Your task to perform on an android device: Open calendar and show me the fourth week of next month Image 0: 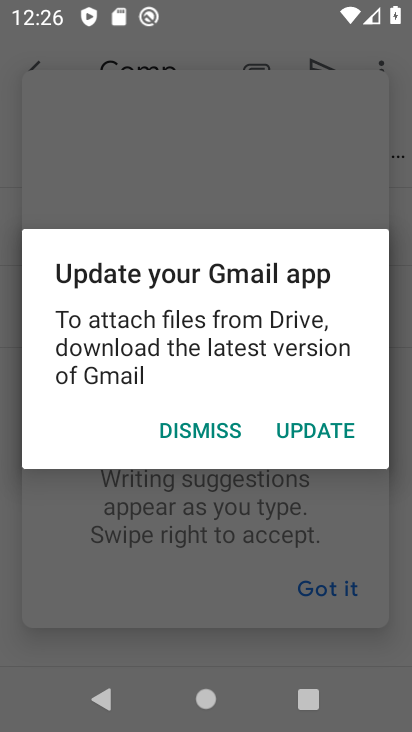
Step 0: press home button
Your task to perform on an android device: Open calendar and show me the fourth week of next month Image 1: 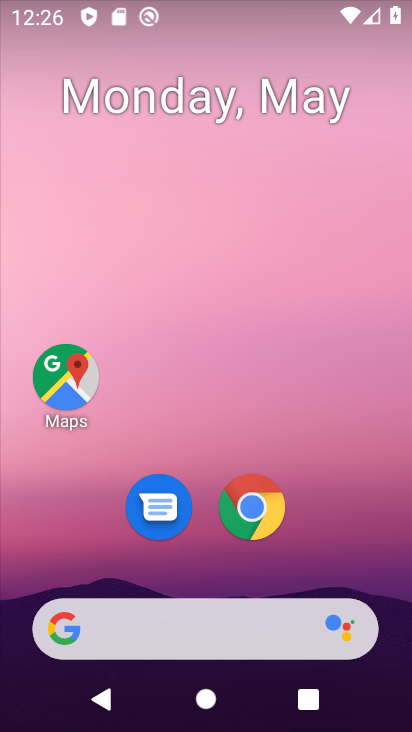
Step 1: drag from (227, 689) to (199, 148)
Your task to perform on an android device: Open calendar and show me the fourth week of next month Image 2: 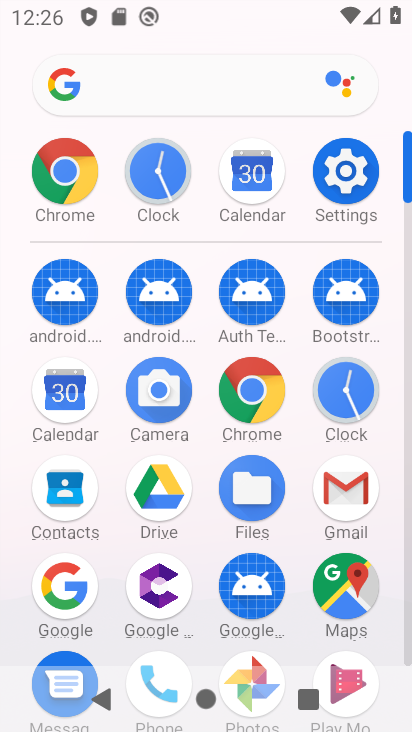
Step 2: click (74, 395)
Your task to perform on an android device: Open calendar and show me the fourth week of next month Image 3: 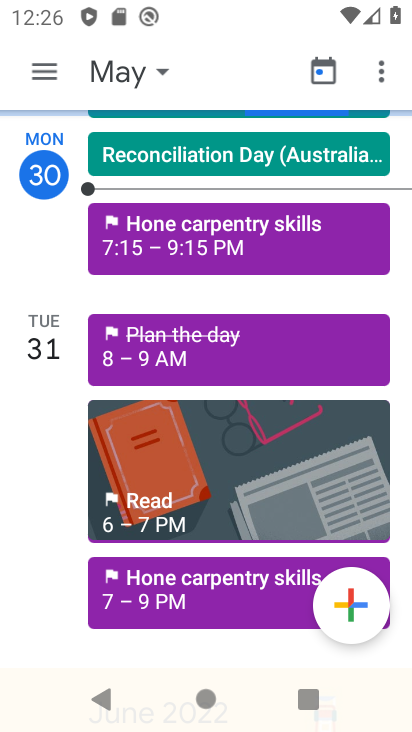
Step 3: click (150, 68)
Your task to perform on an android device: Open calendar and show me the fourth week of next month Image 4: 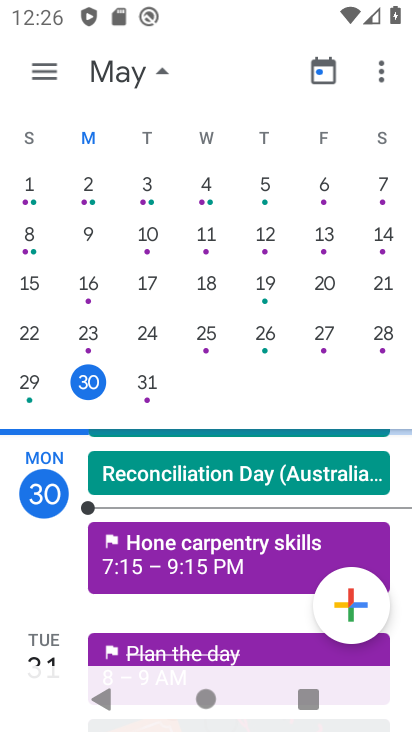
Step 4: drag from (332, 269) to (7, 292)
Your task to perform on an android device: Open calendar and show me the fourth week of next month Image 5: 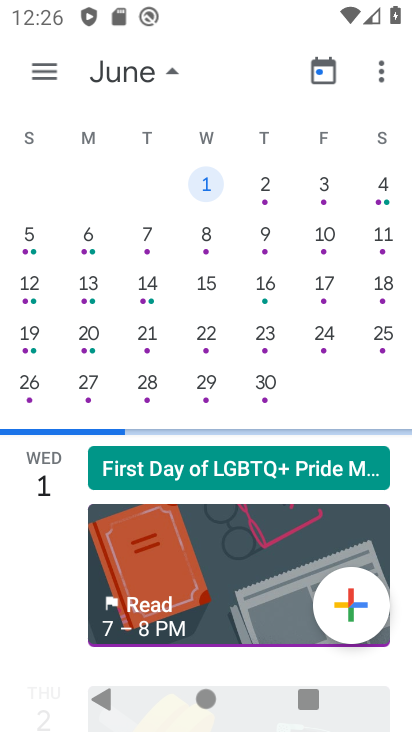
Step 5: click (86, 372)
Your task to perform on an android device: Open calendar and show me the fourth week of next month Image 6: 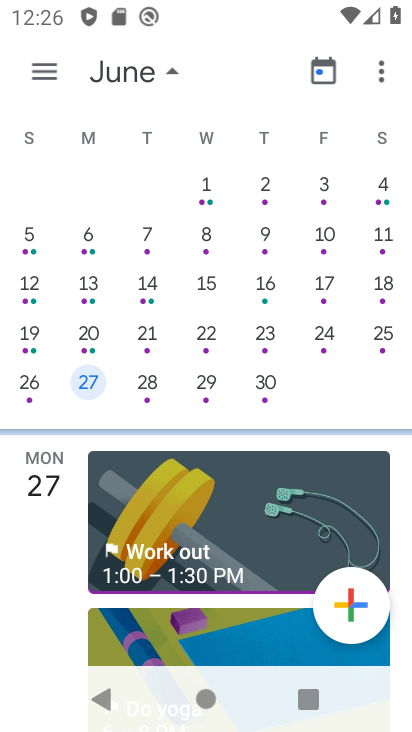
Step 6: click (45, 76)
Your task to perform on an android device: Open calendar and show me the fourth week of next month Image 7: 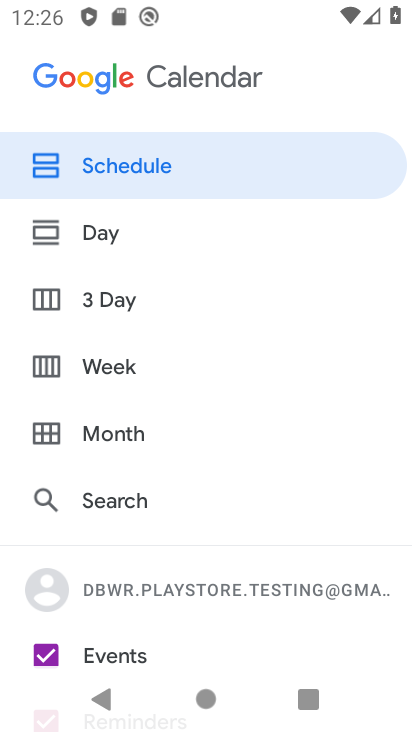
Step 7: click (113, 367)
Your task to perform on an android device: Open calendar and show me the fourth week of next month Image 8: 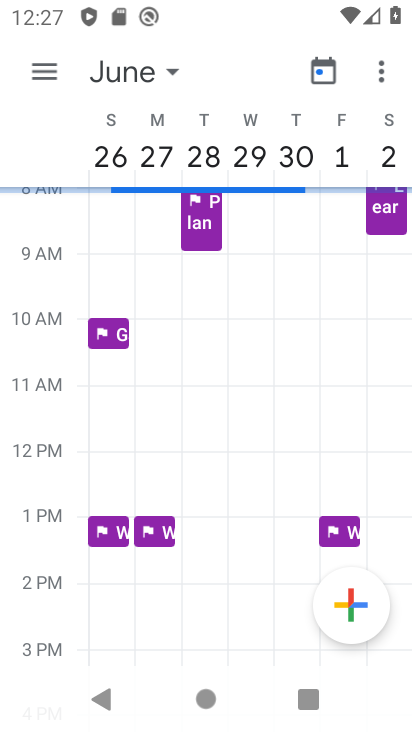
Step 8: task complete